Your task to perform on an android device: turn off data saver in the chrome app Image 0: 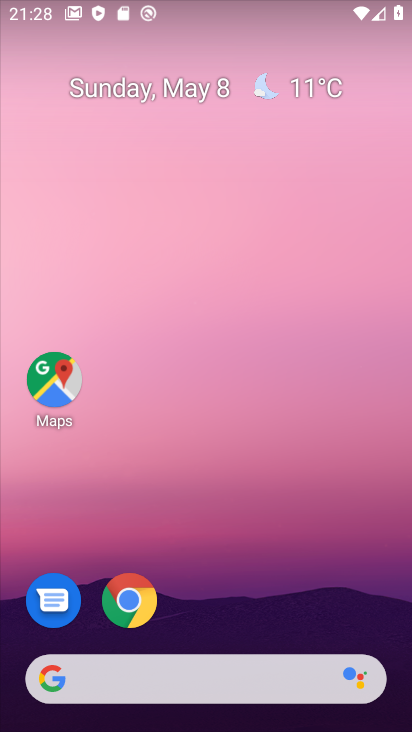
Step 0: click (130, 610)
Your task to perform on an android device: turn off data saver in the chrome app Image 1: 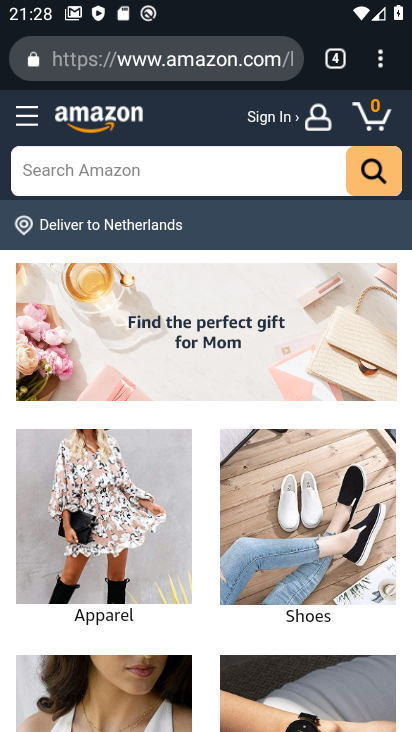
Step 1: click (377, 46)
Your task to perform on an android device: turn off data saver in the chrome app Image 2: 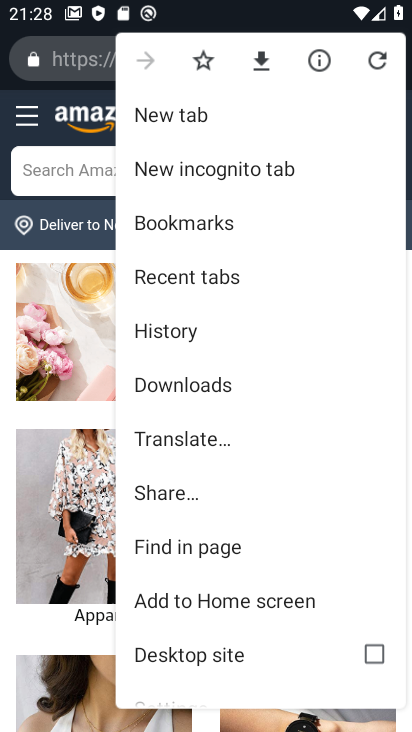
Step 2: drag from (214, 660) to (239, 317)
Your task to perform on an android device: turn off data saver in the chrome app Image 3: 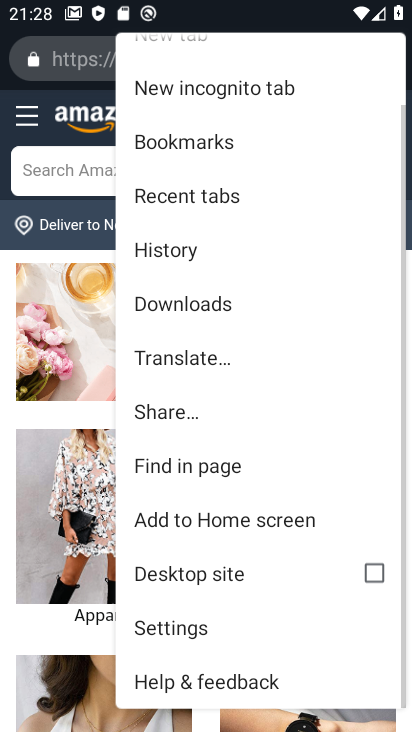
Step 3: click (187, 636)
Your task to perform on an android device: turn off data saver in the chrome app Image 4: 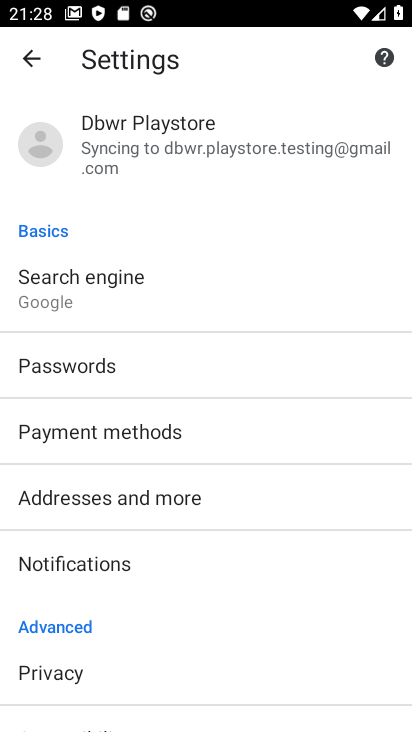
Step 4: drag from (187, 636) to (188, 219)
Your task to perform on an android device: turn off data saver in the chrome app Image 5: 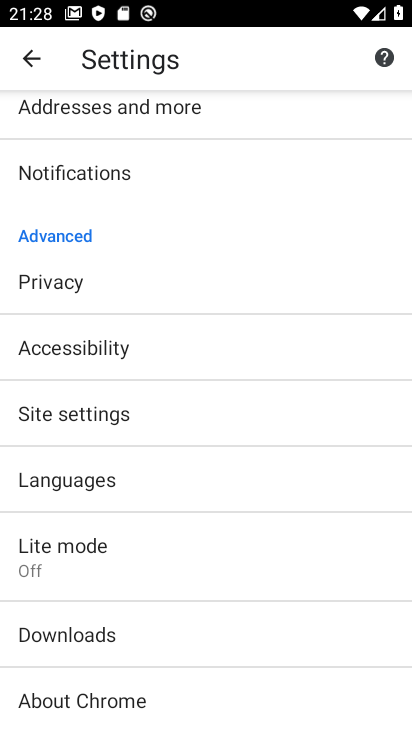
Step 5: click (89, 554)
Your task to perform on an android device: turn off data saver in the chrome app Image 6: 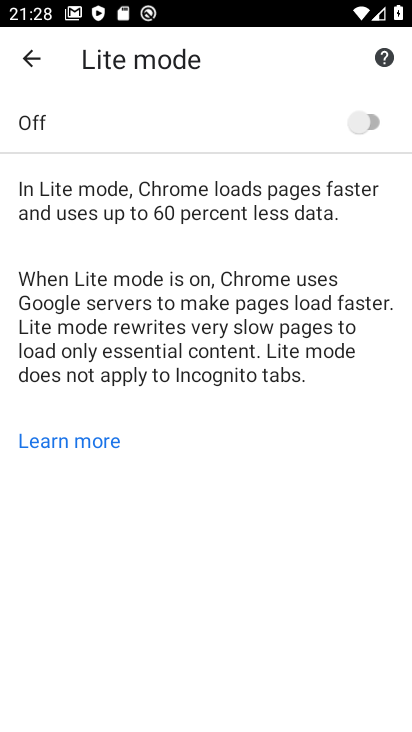
Step 6: task complete